Your task to perform on an android device: open chrome privacy settings Image 0: 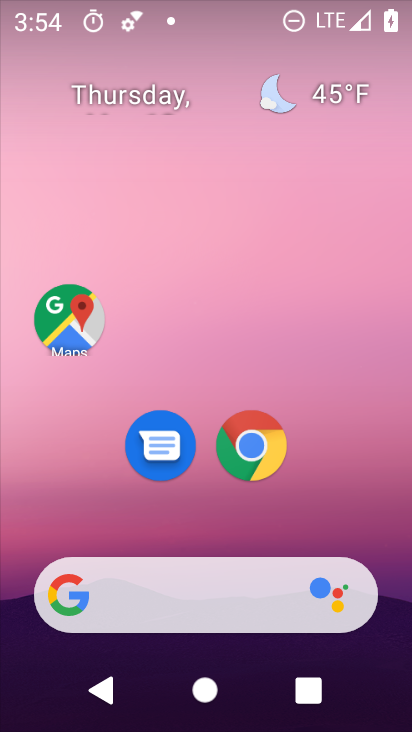
Step 0: click (248, 441)
Your task to perform on an android device: open chrome privacy settings Image 1: 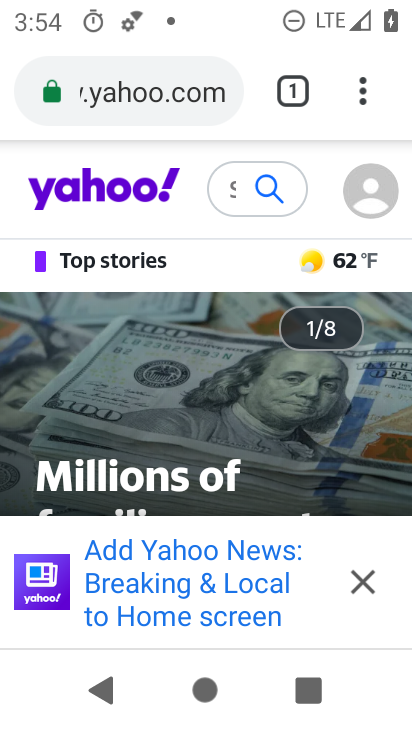
Step 1: click (365, 95)
Your task to perform on an android device: open chrome privacy settings Image 2: 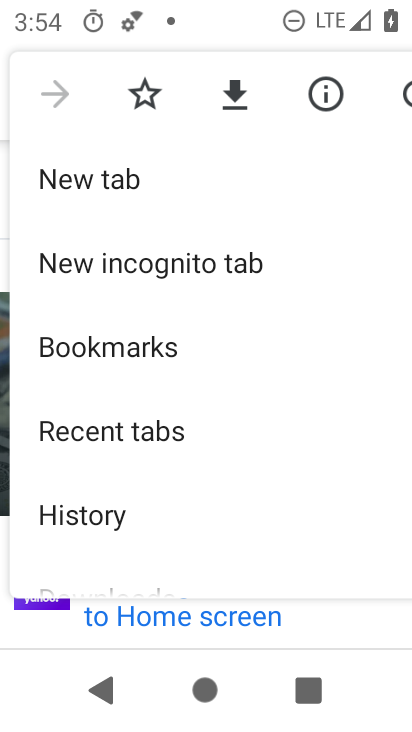
Step 2: drag from (174, 470) to (260, 302)
Your task to perform on an android device: open chrome privacy settings Image 3: 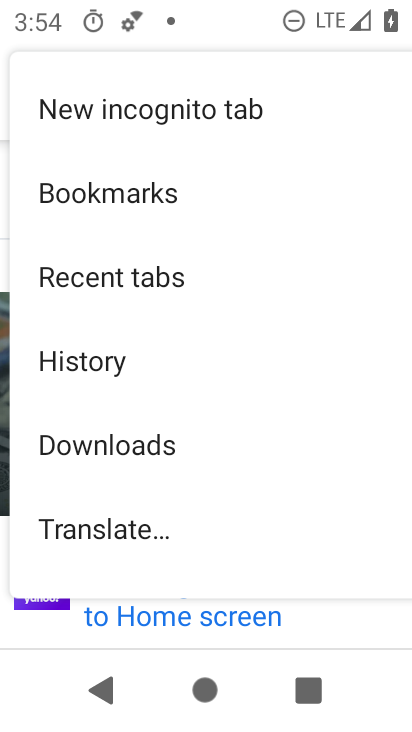
Step 3: drag from (193, 463) to (253, 329)
Your task to perform on an android device: open chrome privacy settings Image 4: 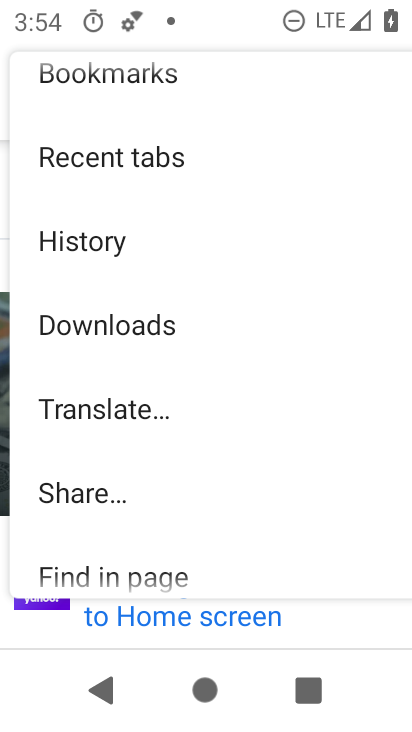
Step 4: drag from (198, 459) to (249, 327)
Your task to perform on an android device: open chrome privacy settings Image 5: 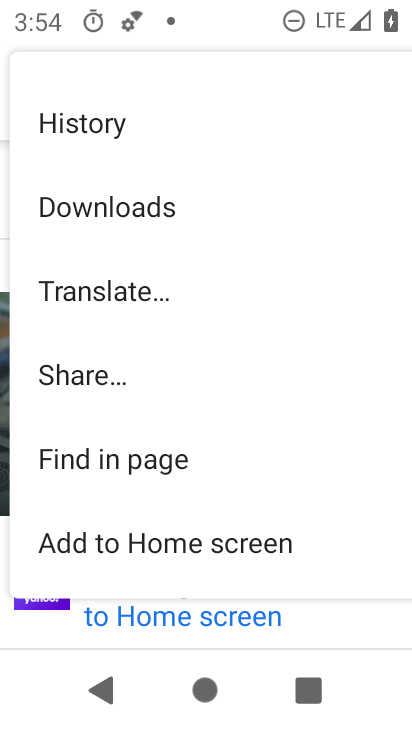
Step 5: drag from (168, 477) to (258, 343)
Your task to perform on an android device: open chrome privacy settings Image 6: 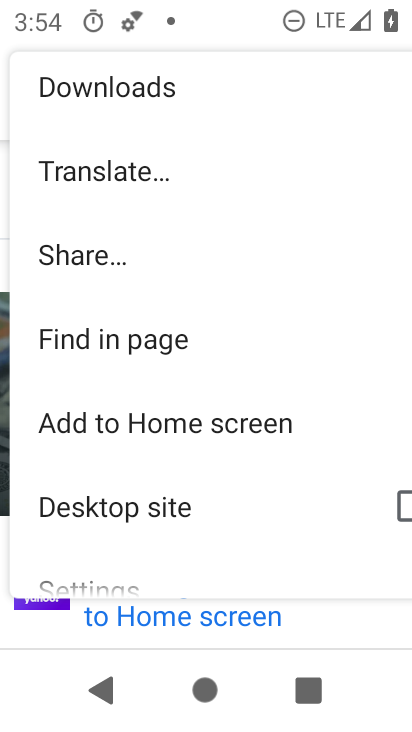
Step 6: drag from (207, 467) to (270, 289)
Your task to perform on an android device: open chrome privacy settings Image 7: 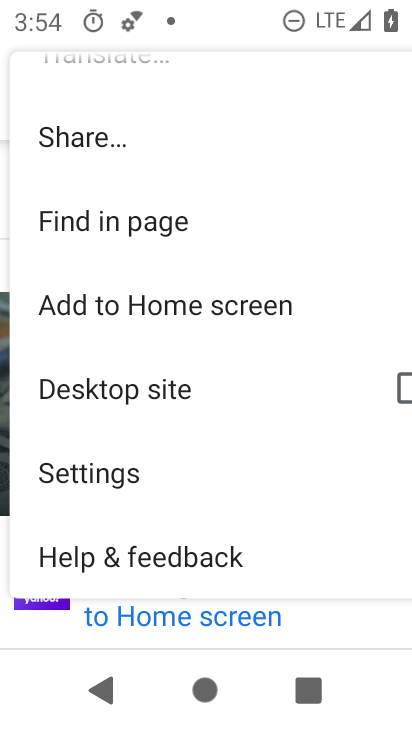
Step 7: click (87, 482)
Your task to perform on an android device: open chrome privacy settings Image 8: 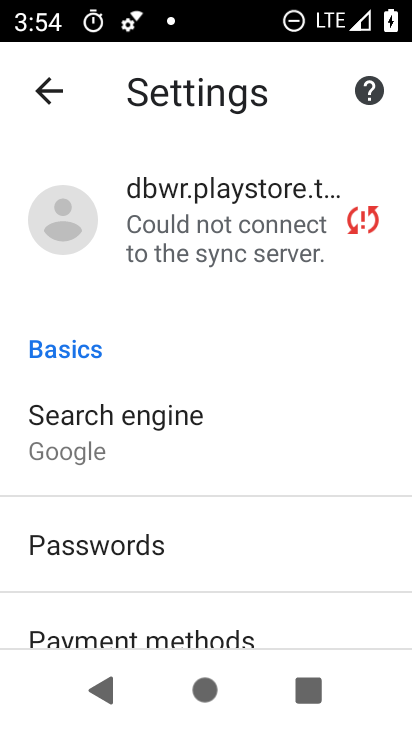
Step 8: drag from (198, 533) to (260, 382)
Your task to perform on an android device: open chrome privacy settings Image 9: 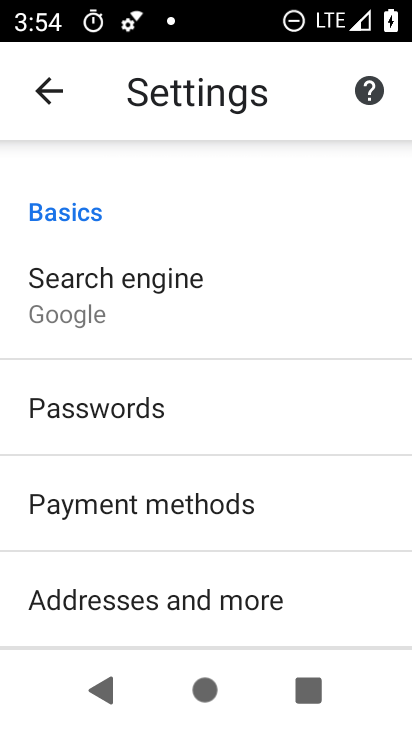
Step 9: drag from (190, 550) to (270, 391)
Your task to perform on an android device: open chrome privacy settings Image 10: 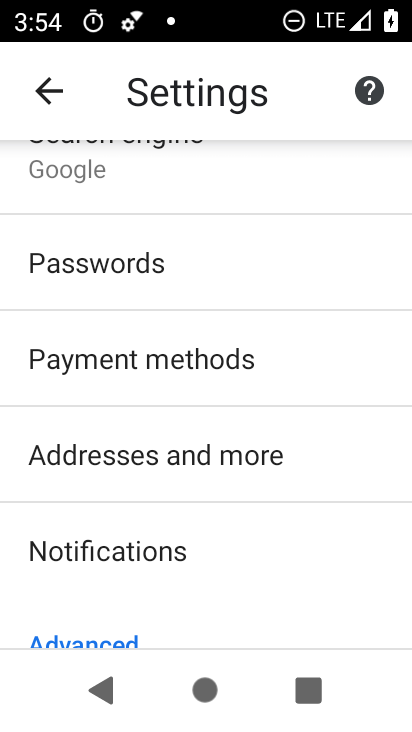
Step 10: drag from (214, 561) to (264, 378)
Your task to perform on an android device: open chrome privacy settings Image 11: 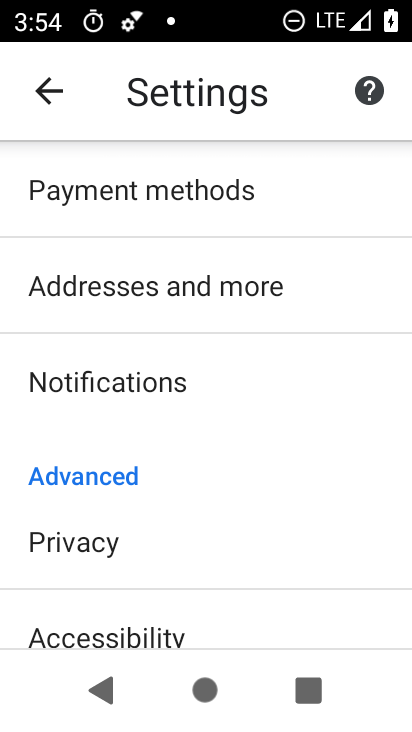
Step 11: click (106, 535)
Your task to perform on an android device: open chrome privacy settings Image 12: 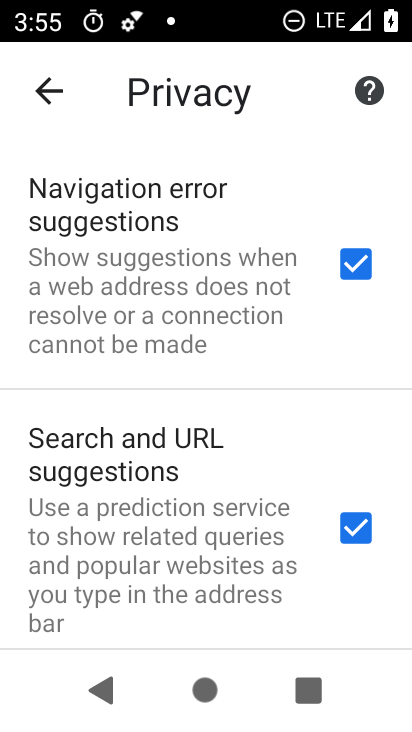
Step 12: task complete